Your task to perform on an android device: Open Amazon Image 0: 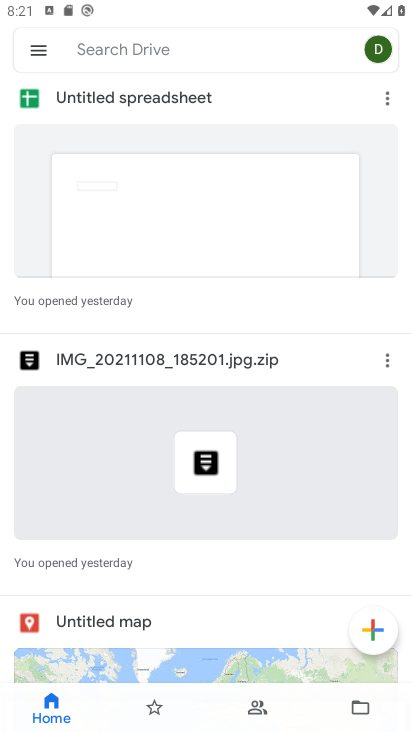
Step 0: press home button
Your task to perform on an android device: Open Amazon Image 1: 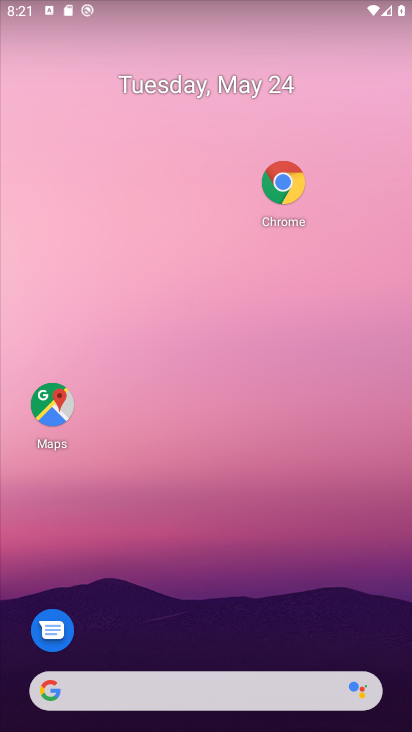
Step 1: drag from (255, 381) to (256, 200)
Your task to perform on an android device: Open Amazon Image 2: 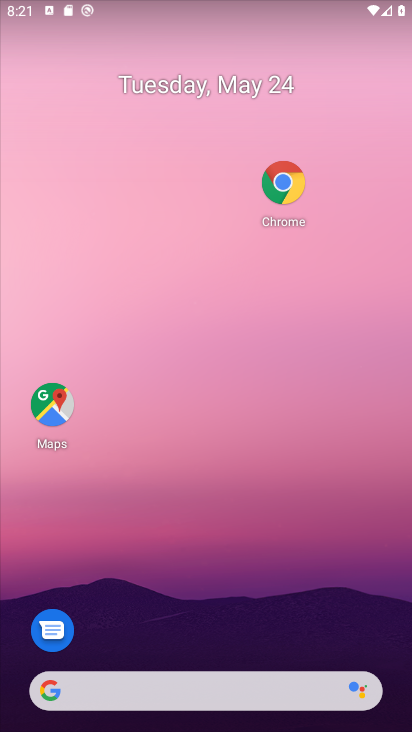
Step 2: drag from (211, 603) to (302, 63)
Your task to perform on an android device: Open Amazon Image 3: 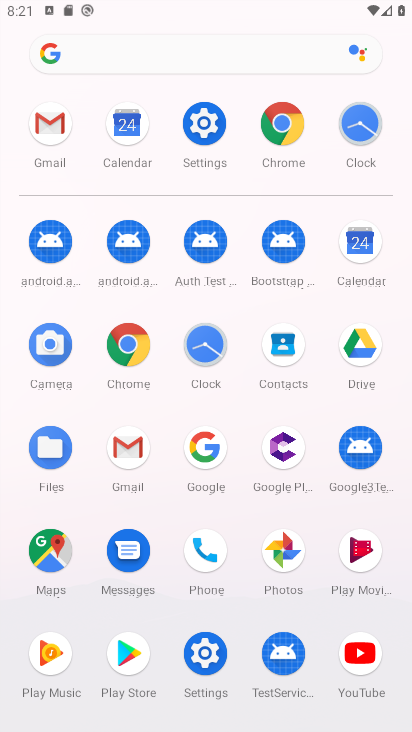
Step 3: click (298, 133)
Your task to perform on an android device: Open Amazon Image 4: 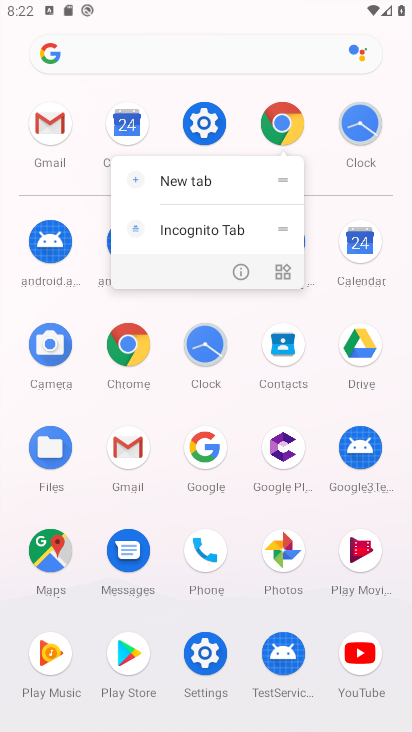
Step 4: click (293, 136)
Your task to perform on an android device: Open Amazon Image 5: 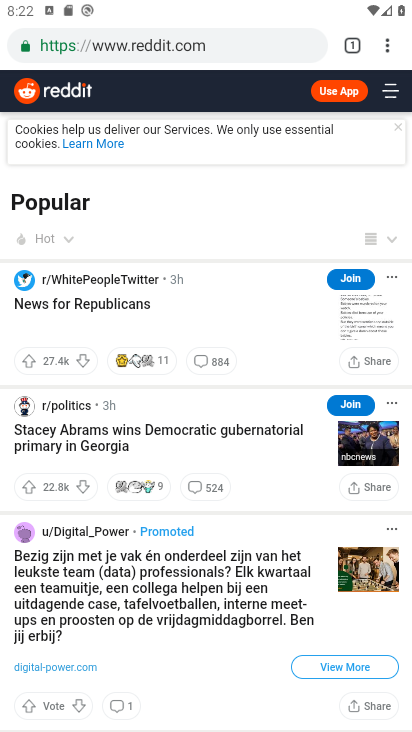
Step 5: click (348, 43)
Your task to perform on an android device: Open Amazon Image 6: 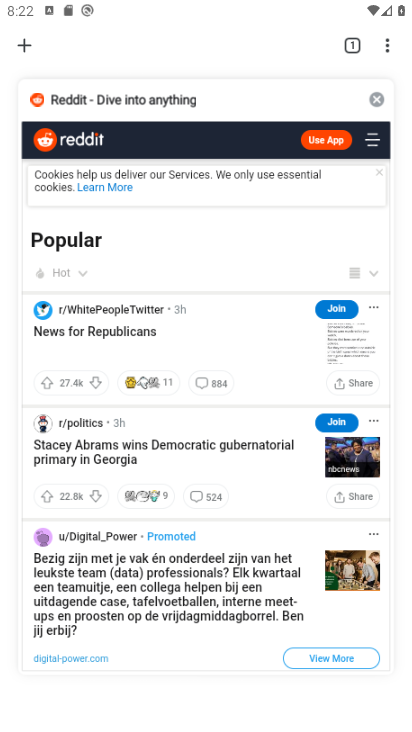
Step 6: click (31, 39)
Your task to perform on an android device: Open Amazon Image 7: 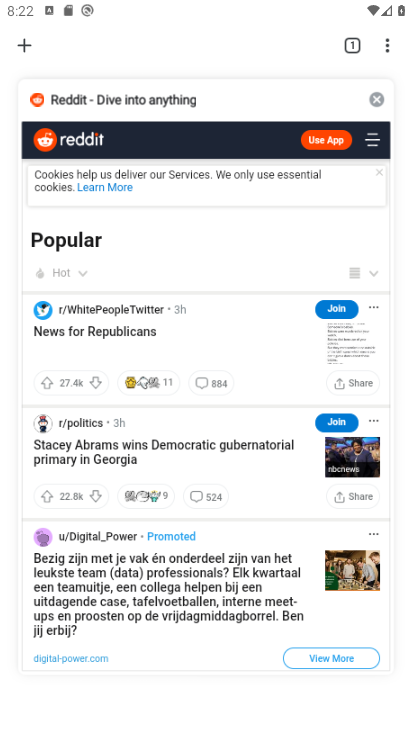
Step 7: click (23, 43)
Your task to perform on an android device: Open Amazon Image 8: 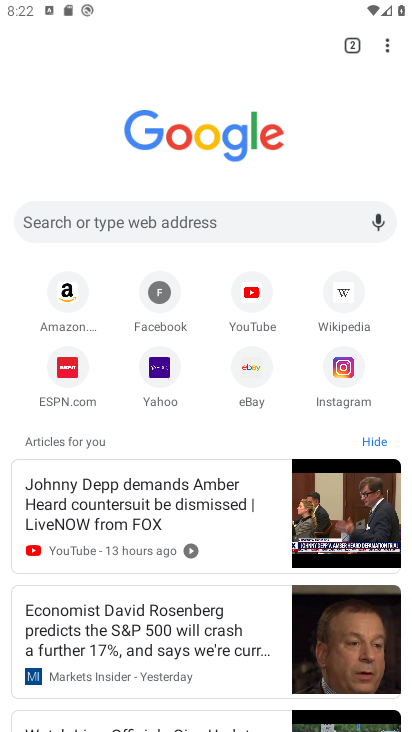
Step 8: click (74, 279)
Your task to perform on an android device: Open Amazon Image 9: 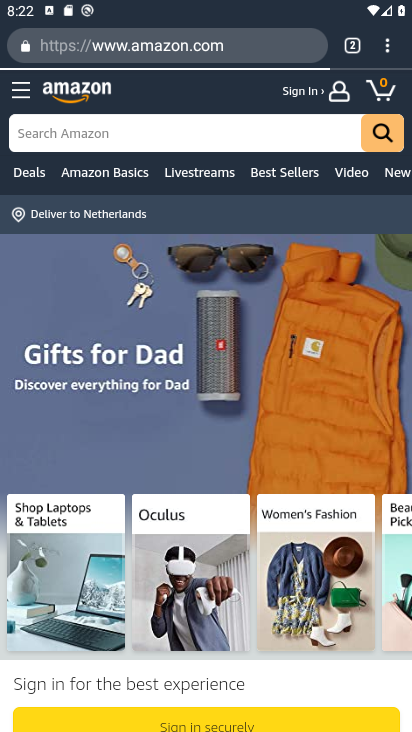
Step 9: task complete